Your task to perform on an android device: turn off javascript in the chrome app Image 0: 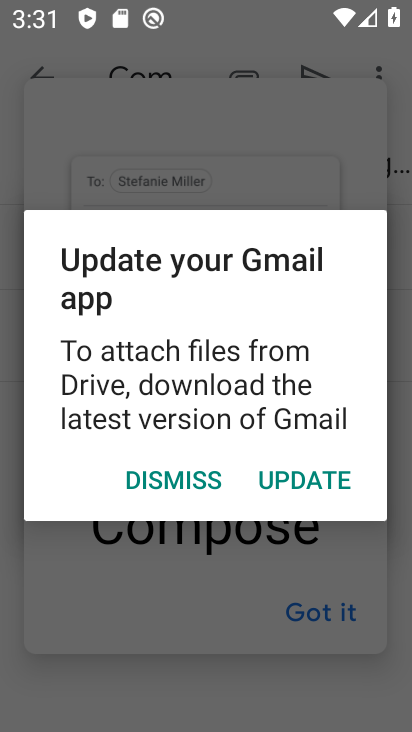
Step 0: click (315, 511)
Your task to perform on an android device: turn off javascript in the chrome app Image 1: 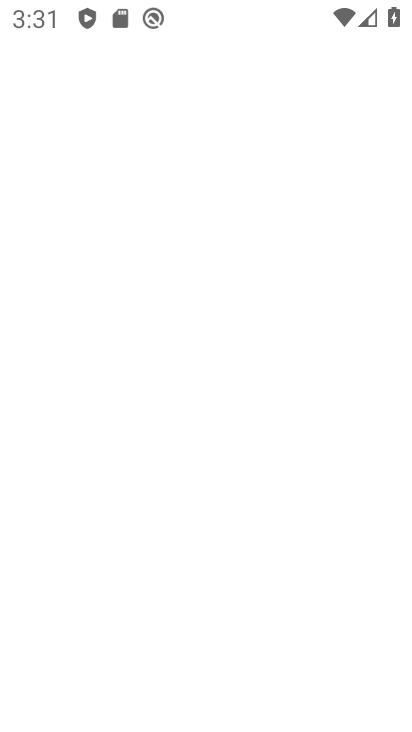
Step 1: press home button
Your task to perform on an android device: turn off javascript in the chrome app Image 2: 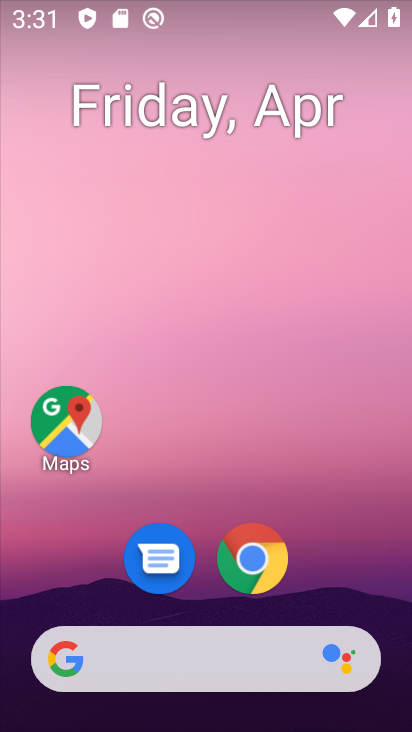
Step 2: click (269, 562)
Your task to perform on an android device: turn off javascript in the chrome app Image 3: 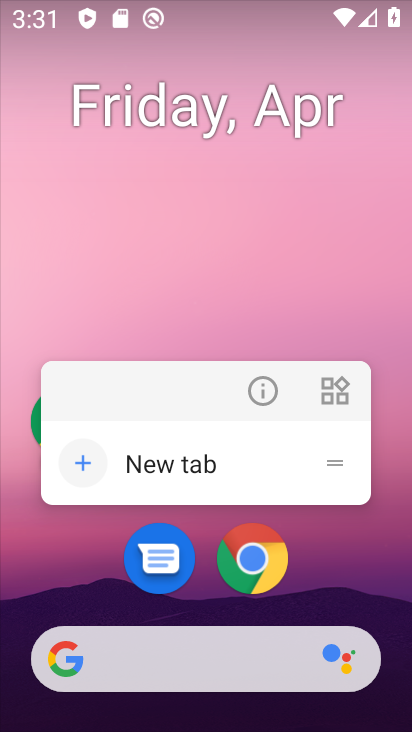
Step 3: click (259, 569)
Your task to perform on an android device: turn off javascript in the chrome app Image 4: 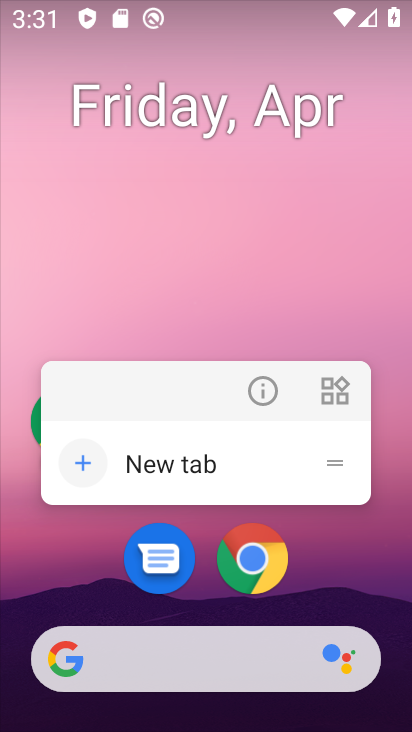
Step 4: click (263, 552)
Your task to perform on an android device: turn off javascript in the chrome app Image 5: 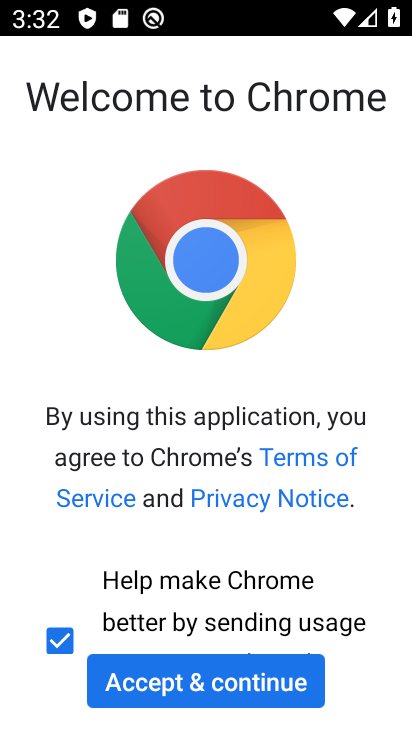
Step 5: click (159, 674)
Your task to perform on an android device: turn off javascript in the chrome app Image 6: 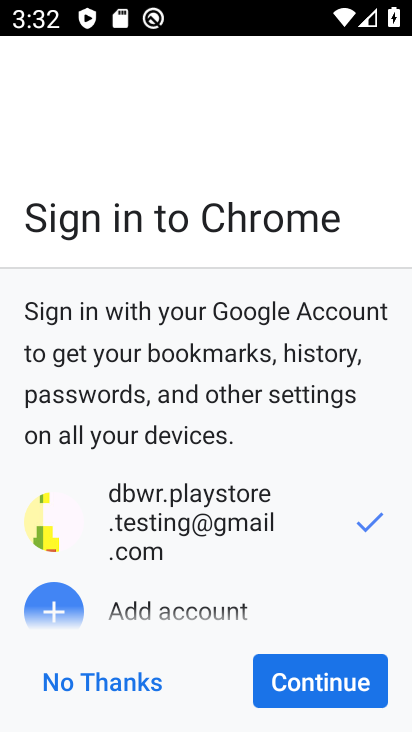
Step 6: click (286, 689)
Your task to perform on an android device: turn off javascript in the chrome app Image 7: 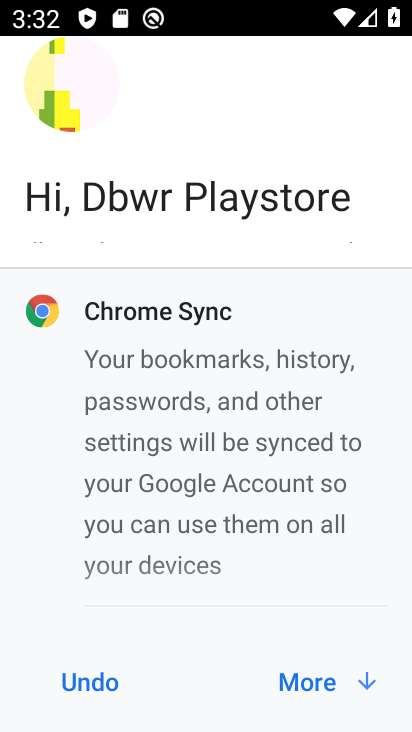
Step 7: click (332, 684)
Your task to perform on an android device: turn off javascript in the chrome app Image 8: 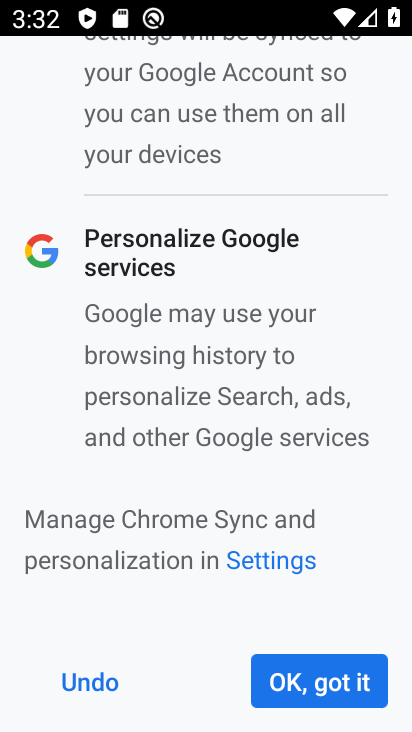
Step 8: click (332, 685)
Your task to perform on an android device: turn off javascript in the chrome app Image 9: 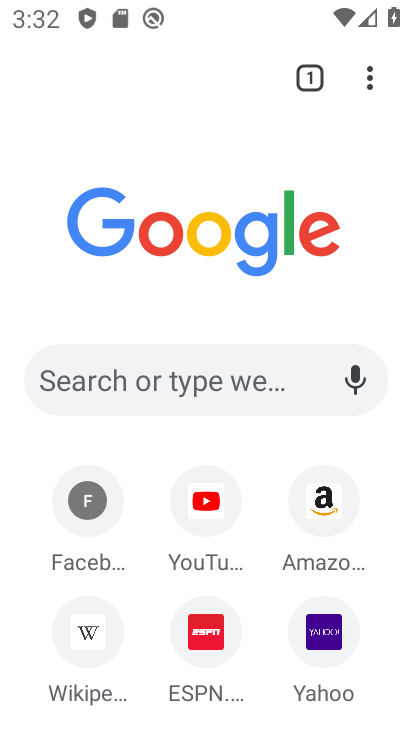
Step 9: click (370, 82)
Your task to perform on an android device: turn off javascript in the chrome app Image 10: 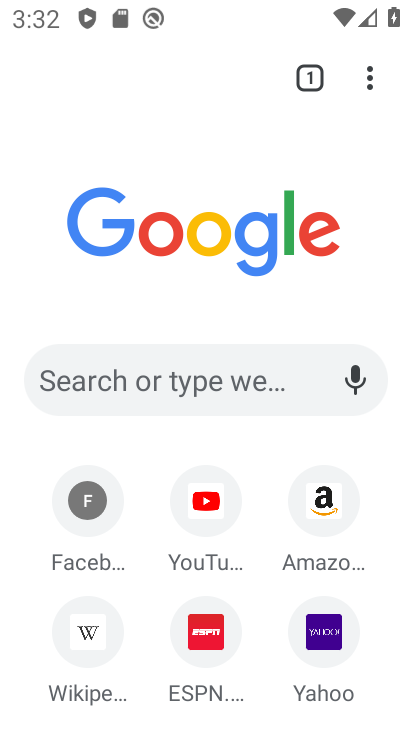
Step 10: click (367, 76)
Your task to perform on an android device: turn off javascript in the chrome app Image 11: 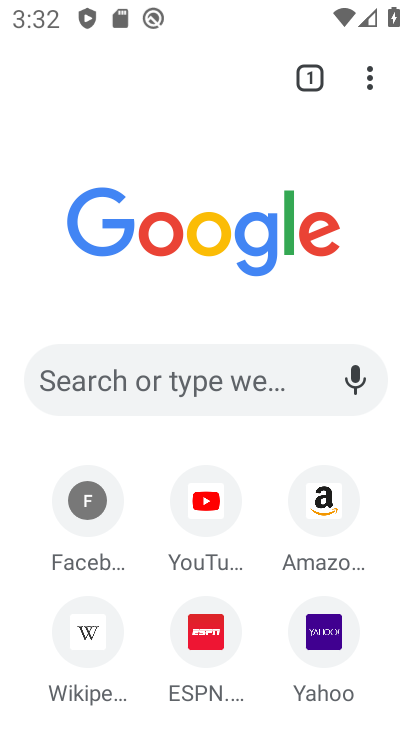
Step 11: click (370, 74)
Your task to perform on an android device: turn off javascript in the chrome app Image 12: 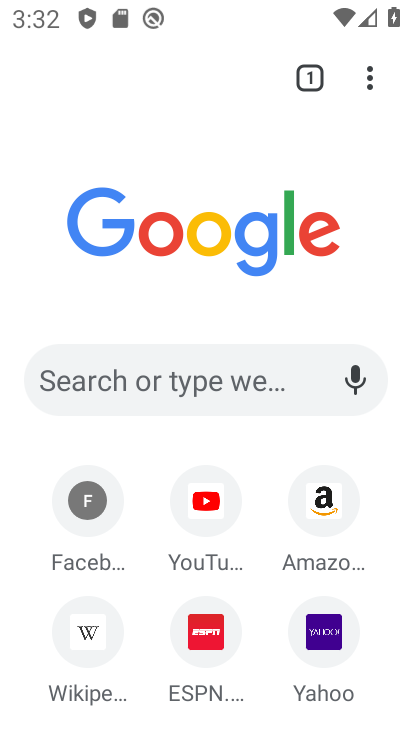
Step 12: click (370, 74)
Your task to perform on an android device: turn off javascript in the chrome app Image 13: 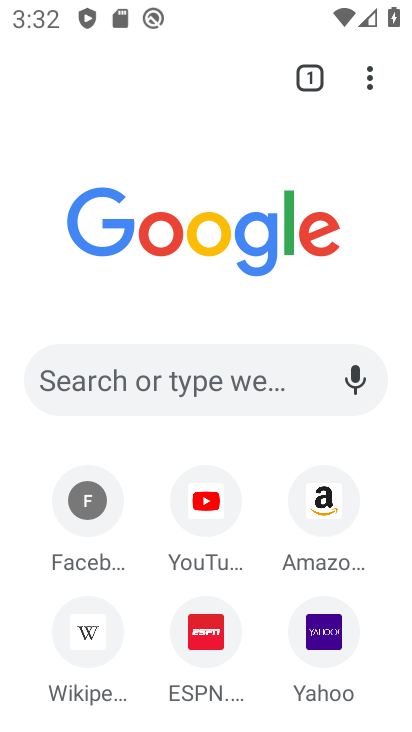
Step 13: click (368, 85)
Your task to perform on an android device: turn off javascript in the chrome app Image 14: 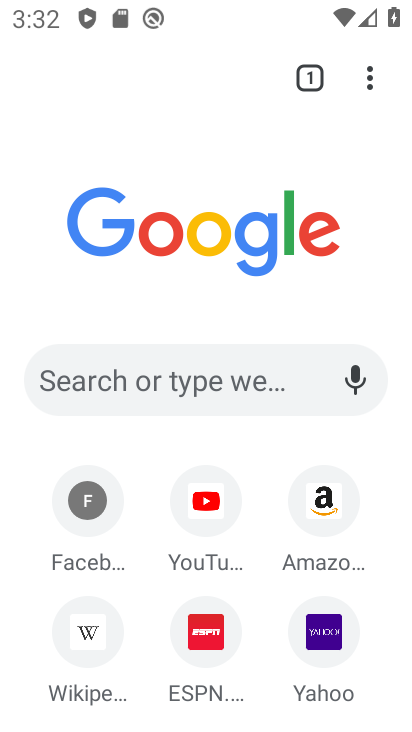
Step 14: click (358, 68)
Your task to perform on an android device: turn off javascript in the chrome app Image 15: 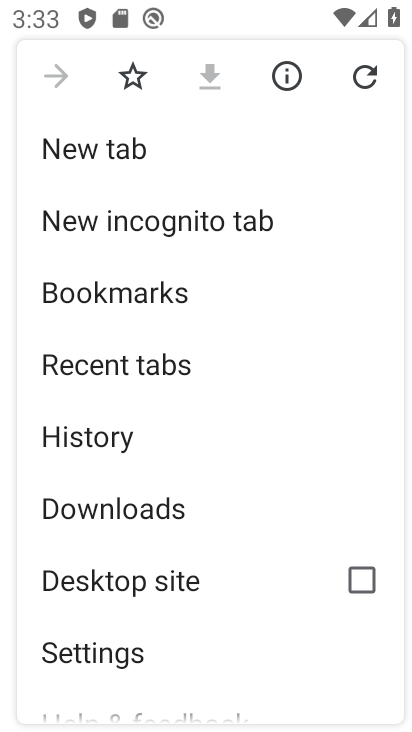
Step 15: click (102, 651)
Your task to perform on an android device: turn off javascript in the chrome app Image 16: 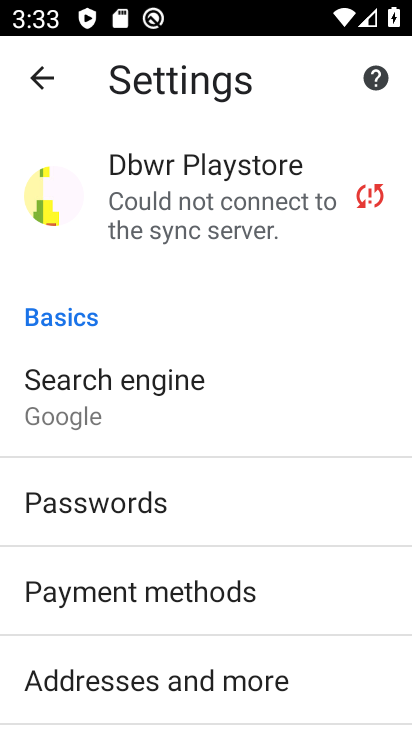
Step 16: drag from (164, 634) to (182, 371)
Your task to perform on an android device: turn off javascript in the chrome app Image 17: 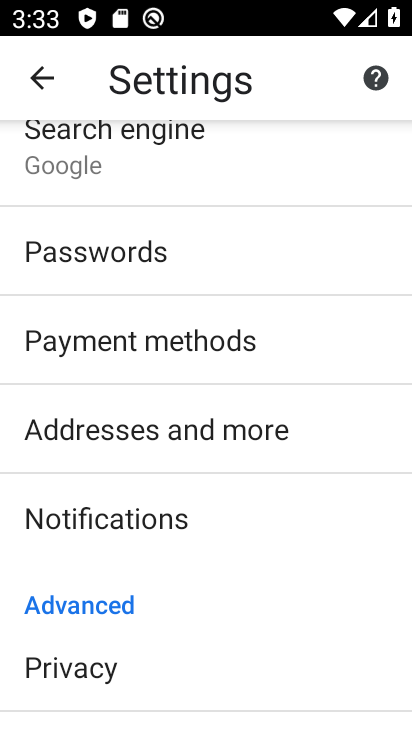
Step 17: drag from (199, 649) to (181, 289)
Your task to perform on an android device: turn off javascript in the chrome app Image 18: 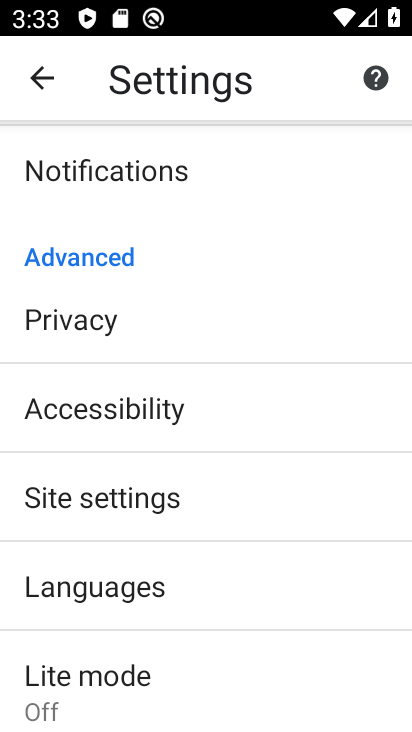
Step 18: drag from (218, 525) to (205, 386)
Your task to perform on an android device: turn off javascript in the chrome app Image 19: 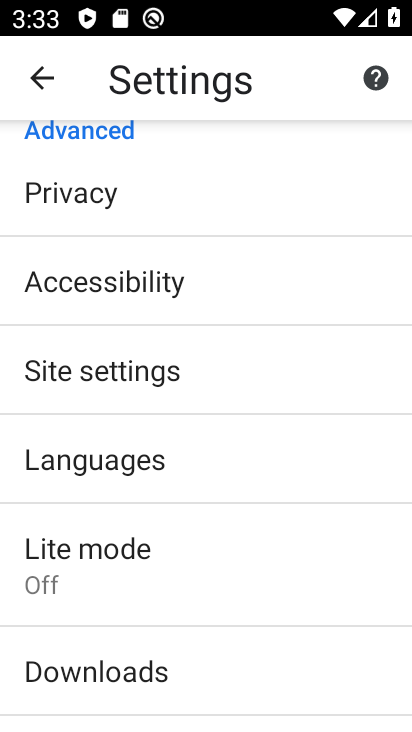
Step 19: drag from (208, 503) to (204, 339)
Your task to perform on an android device: turn off javascript in the chrome app Image 20: 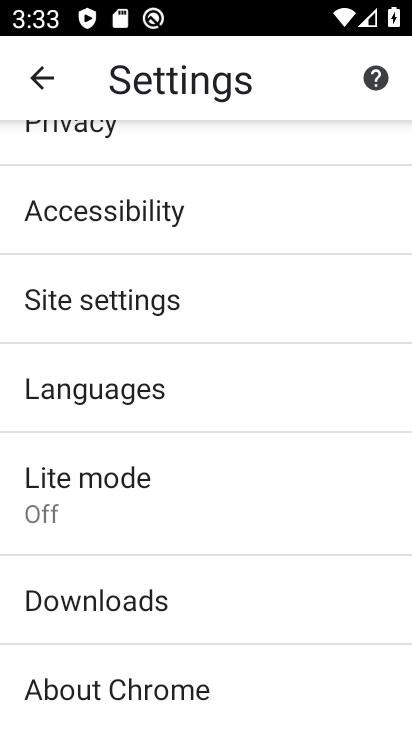
Step 20: click (106, 314)
Your task to perform on an android device: turn off javascript in the chrome app Image 21: 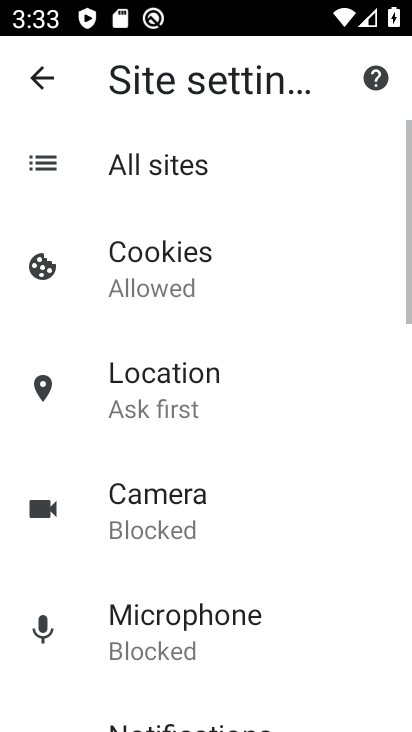
Step 21: drag from (228, 671) to (297, 300)
Your task to perform on an android device: turn off javascript in the chrome app Image 22: 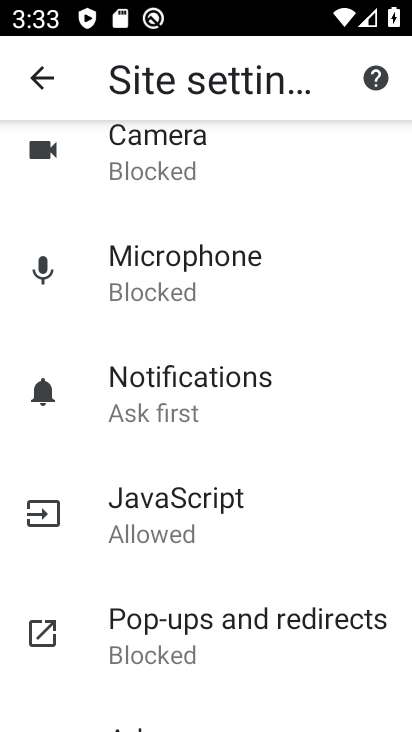
Step 22: click (196, 521)
Your task to perform on an android device: turn off javascript in the chrome app Image 23: 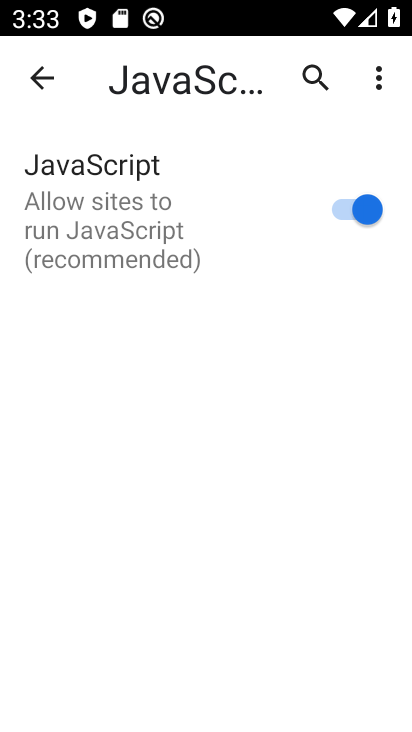
Step 23: click (321, 205)
Your task to perform on an android device: turn off javascript in the chrome app Image 24: 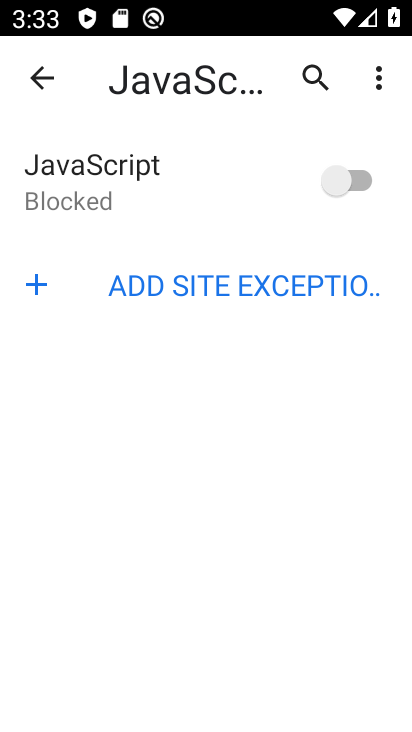
Step 24: task complete